Your task to perform on an android device: remove spam from my inbox in the gmail app Image 0: 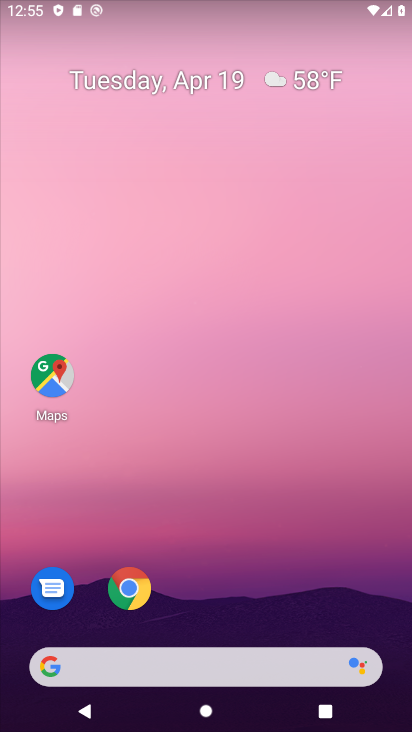
Step 0: drag from (200, 604) to (169, 230)
Your task to perform on an android device: remove spam from my inbox in the gmail app Image 1: 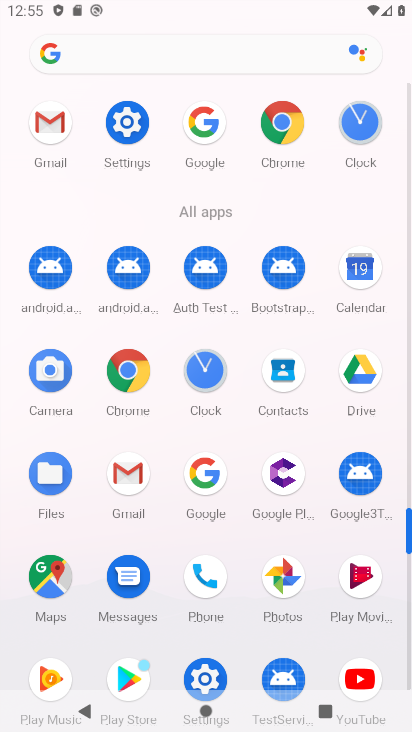
Step 1: click (54, 142)
Your task to perform on an android device: remove spam from my inbox in the gmail app Image 2: 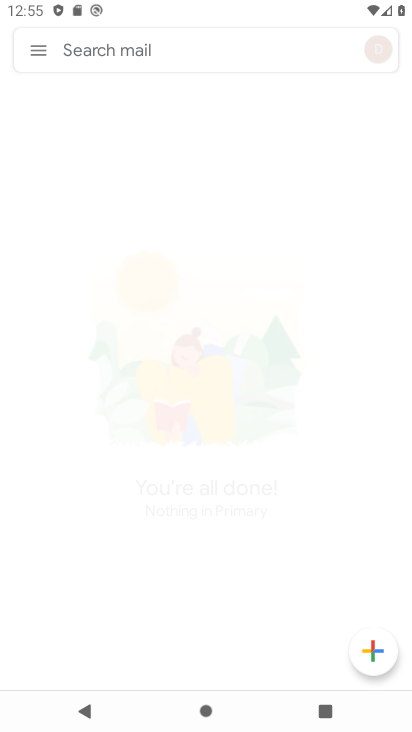
Step 2: click (34, 52)
Your task to perform on an android device: remove spam from my inbox in the gmail app Image 3: 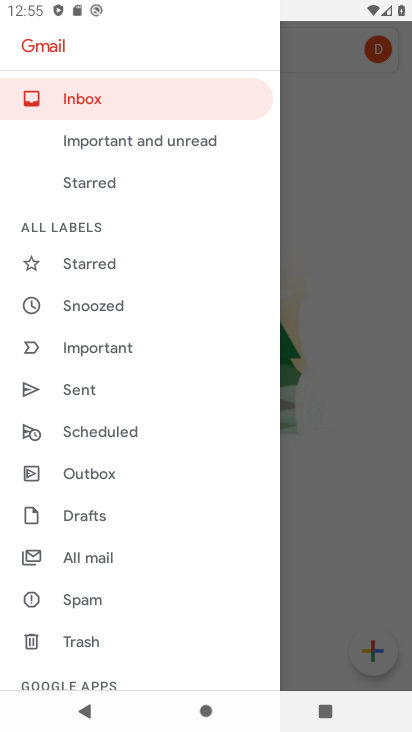
Step 3: drag from (131, 561) to (140, 411)
Your task to perform on an android device: remove spam from my inbox in the gmail app Image 4: 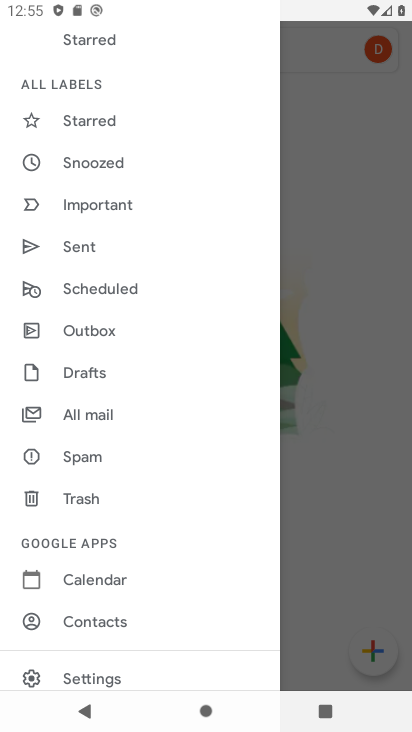
Step 4: click (104, 458)
Your task to perform on an android device: remove spam from my inbox in the gmail app Image 5: 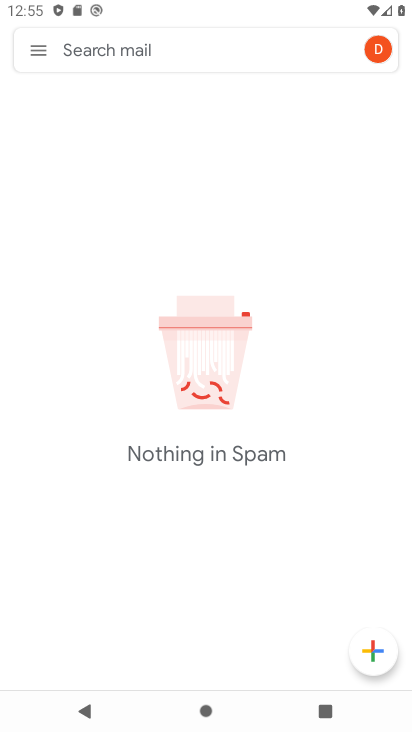
Step 5: task complete